Your task to perform on an android device: read, delete, or share a saved page in the chrome app Image 0: 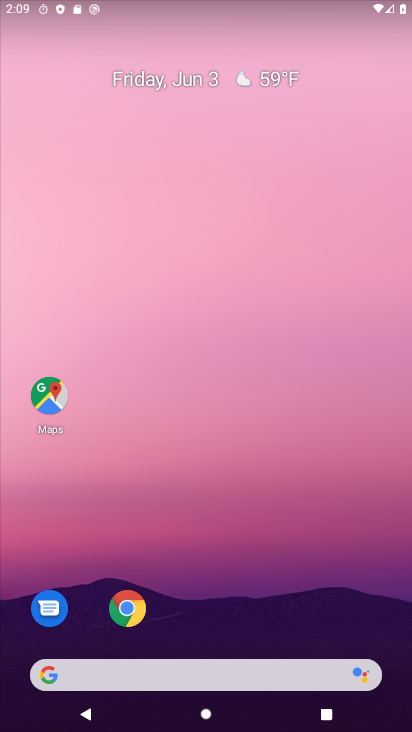
Step 0: click (146, 618)
Your task to perform on an android device: read, delete, or share a saved page in the chrome app Image 1: 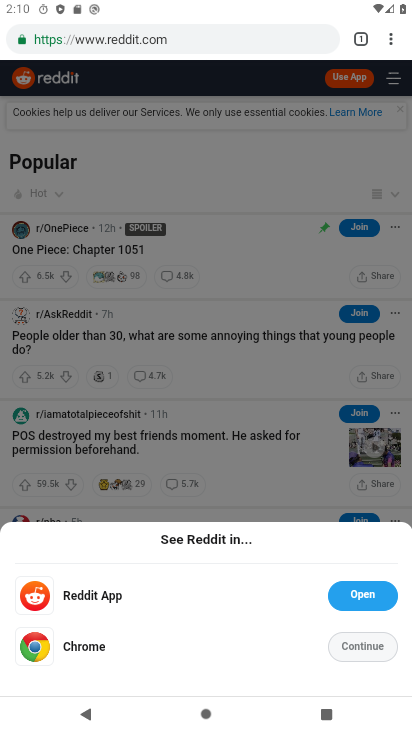
Step 1: drag from (387, 47) to (283, 304)
Your task to perform on an android device: read, delete, or share a saved page in the chrome app Image 2: 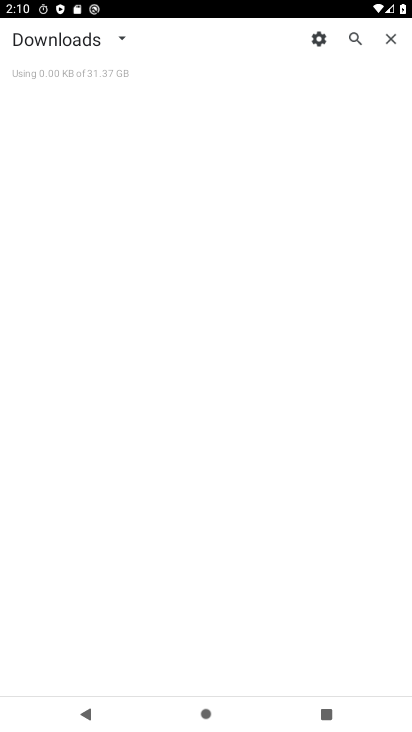
Step 2: click (111, 36)
Your task to perform on an android device: read, delete, or share a saved page in the chrome app Image 3: 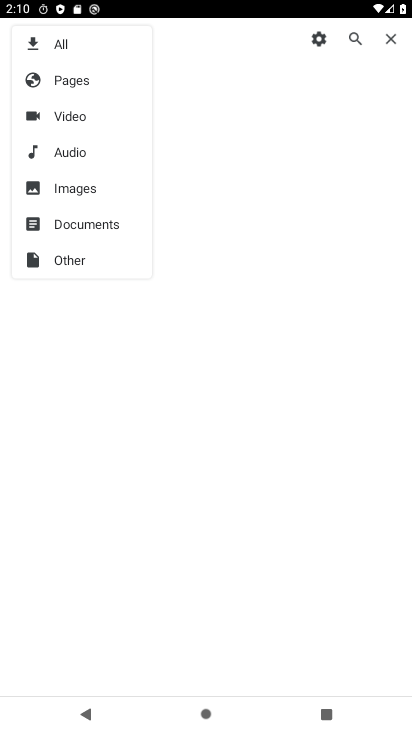
Step 3: click (75, 81)
Your task to perform on an android device: read, delete, or share a saved page in the chrome app Image 4: 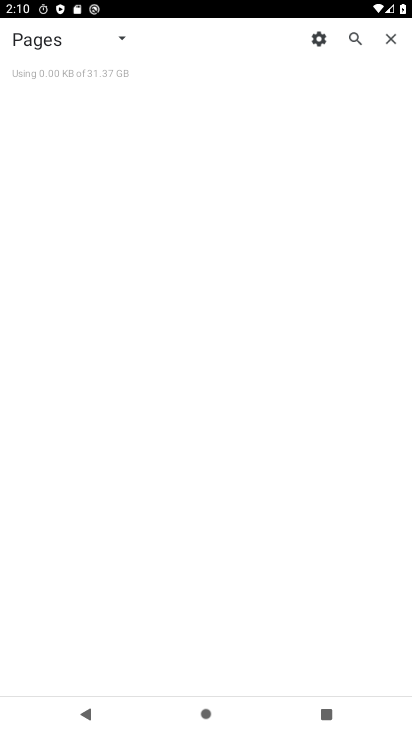
Step 4: task complete